Your task to perform on an android device: toggle pop-ups in chrome Image 0: 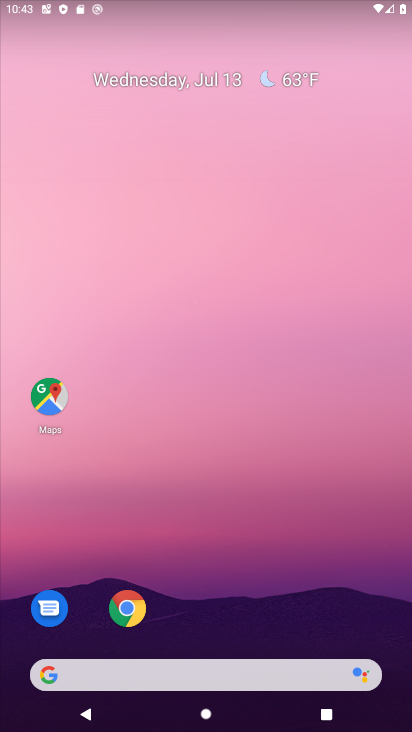
Step 0: drag from (319, 576) to (314, 116)
Your task to perform on an android device: toggle pop-ups in chrome Image 1: 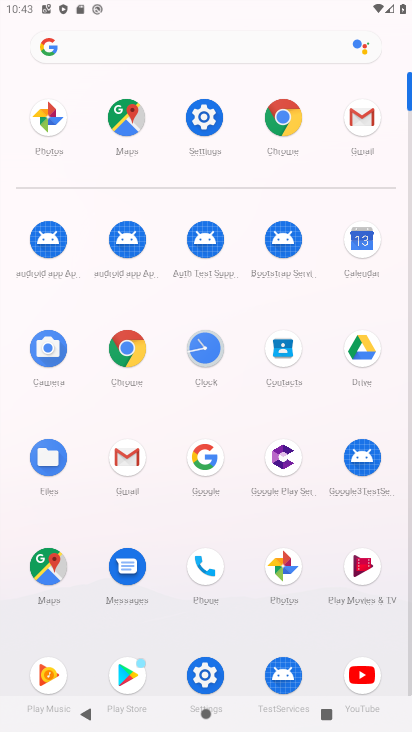
Step 1: click (115, 353)
Your task to perform on an android device: toggle pop-ups in chrome Image 2: 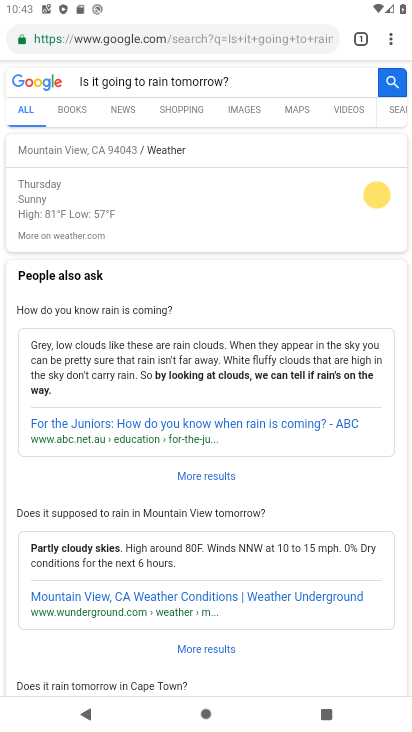
Step 2: drag from (383, 38) to (281, 440)
Your task to perform on an android device: toggle pop-ups in chrome Image 3: 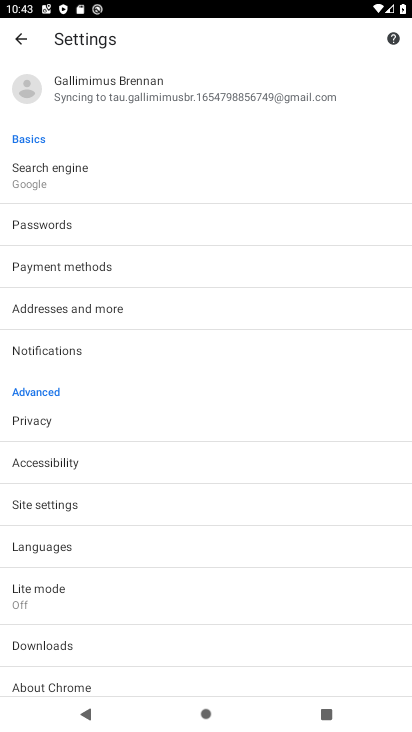
Step 3: click (50, 498)
Your task to perform on an android device: toggle pop-ups in chrome Image 4: 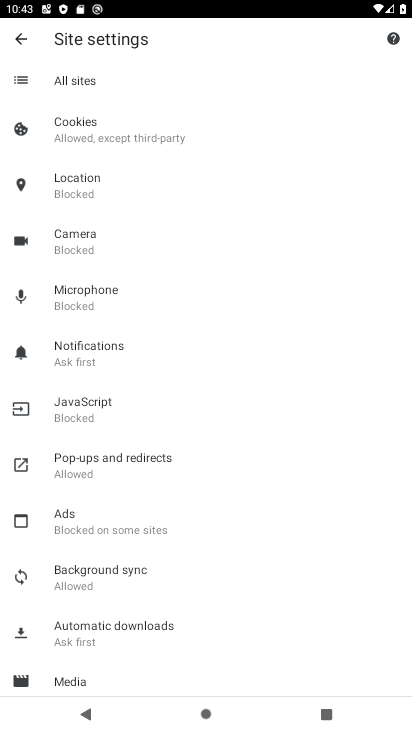
Step 4: click (114, 461)
Your task to perform on an android device: toggle pop-ups in chrome Image 5: 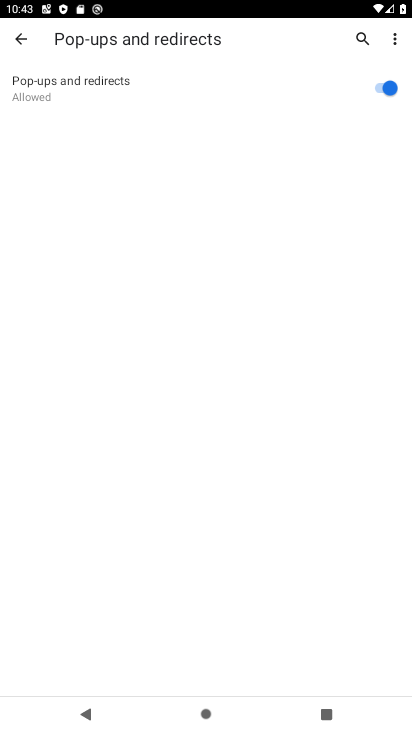
Step 5: click (354, 79)
Your task to perform on an android device: toggle pop-ups in chrome Image 6: 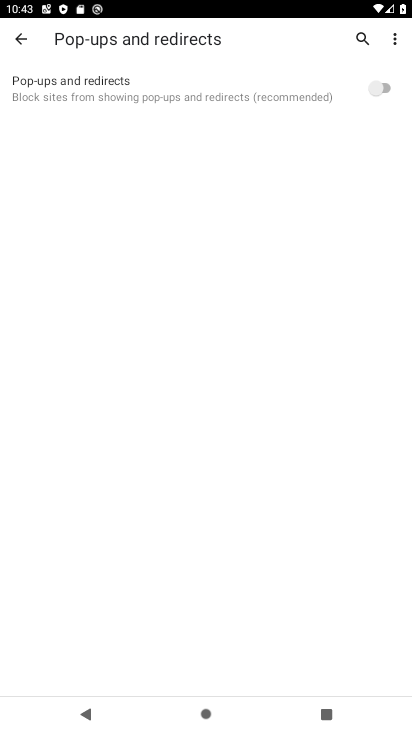
Step 6: task complete